Your task to perform on an android device: see tabs open on other devices in the chrome app Image 0: 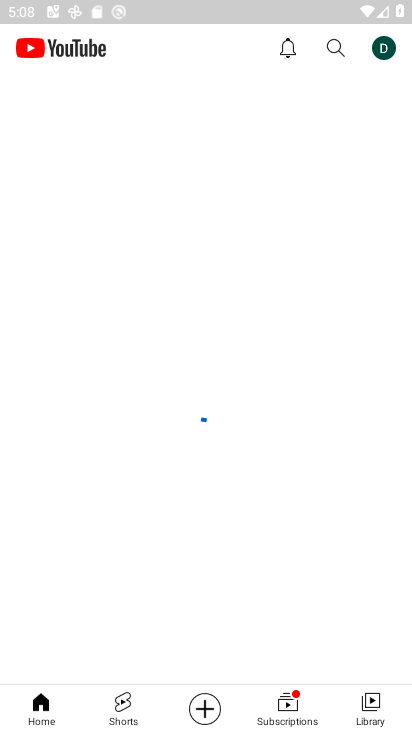
Step 0: drag from (234, 428) to (221, 147)
Your task to perform on an android device: see tabs open on other devices in the chrome app Image 1: 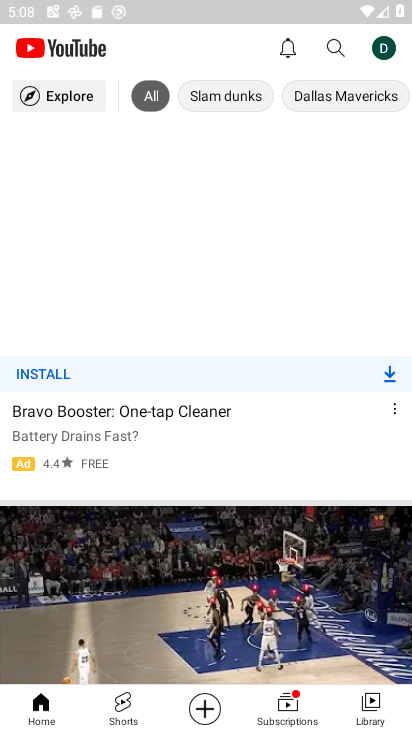
Step 1: press home button
Your task to perform on an android device: see tabs open on other devices in the chrome app Image 2: 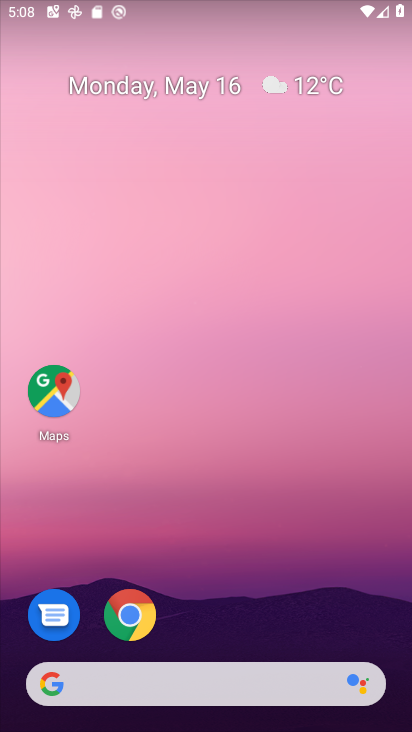
Step 2: drag from (213, 618) to (255, 61)
Your task to perform on an android device: see tabs open on other devices in the chrome app Image 3: 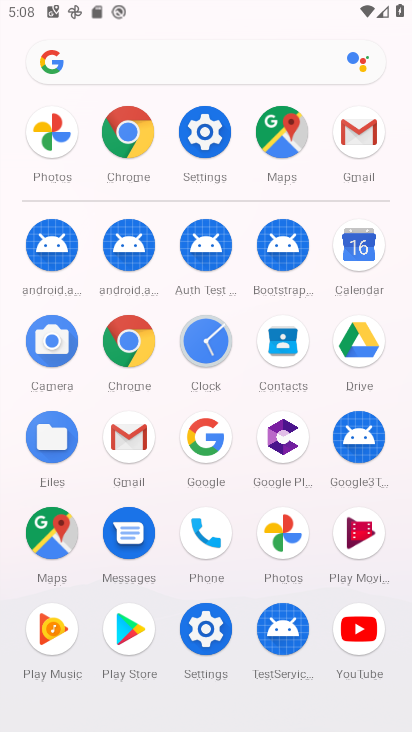
Step 3: click (128, 162)
Your task to perform on an android device: see tabs open on other devices in the chrome app Image 4: 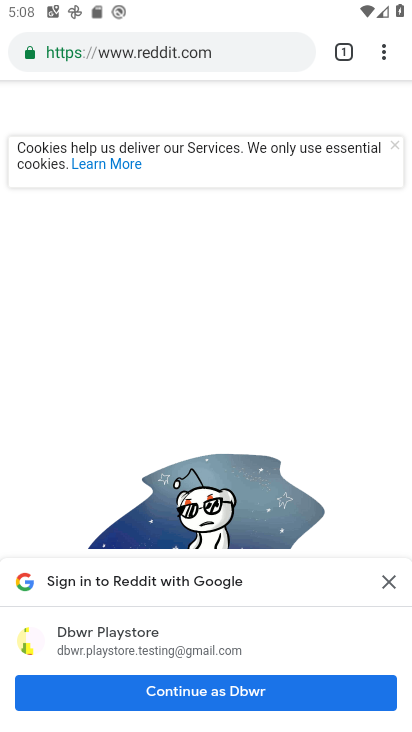
Step 4: click (379, 45)
Your task to perform on an android device: see tabs open on other devices in the chrome app Image 5: 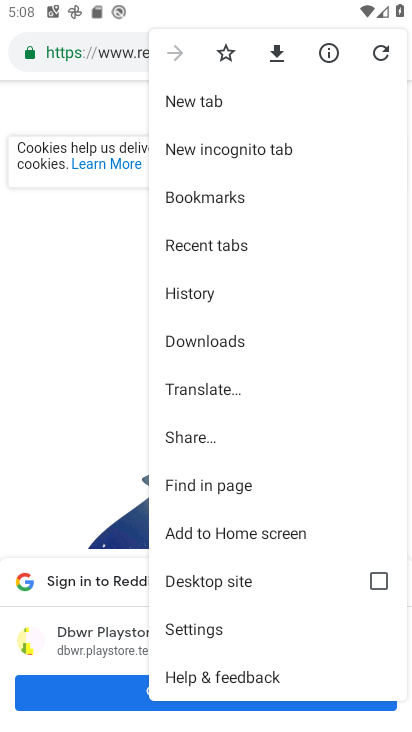
Step 5: click (205, 249)
Your task to perform on an android device: see tabs open on other devices in the chrome app Image 6: 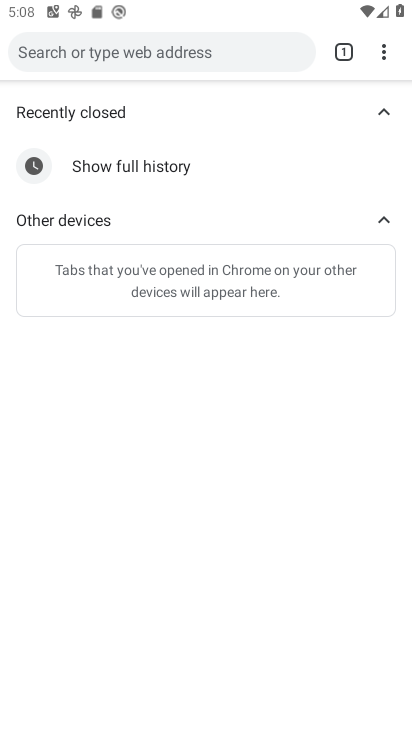
Step 6: task complete